Your task to perform on an android device: Open the map Image 0: 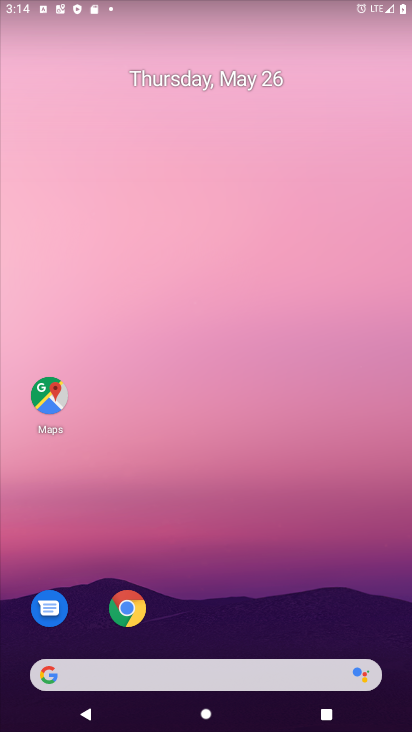
Step 0: click (51, 395)
Your task to perform on an android device: Open the map Image 1: 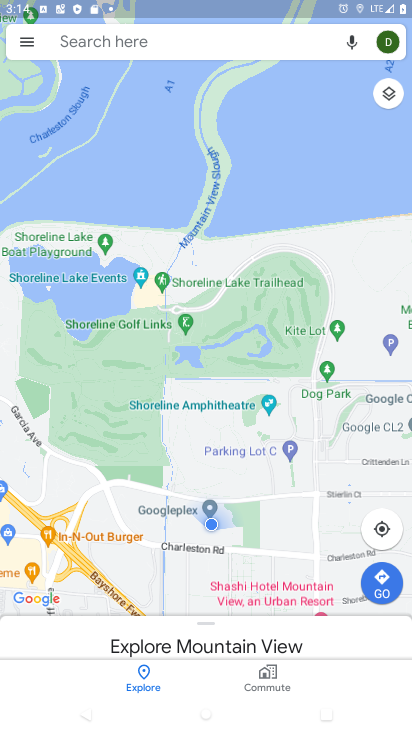
Step 1: task complete